Your task to perform on an android device: Open privacy settings Image 0: 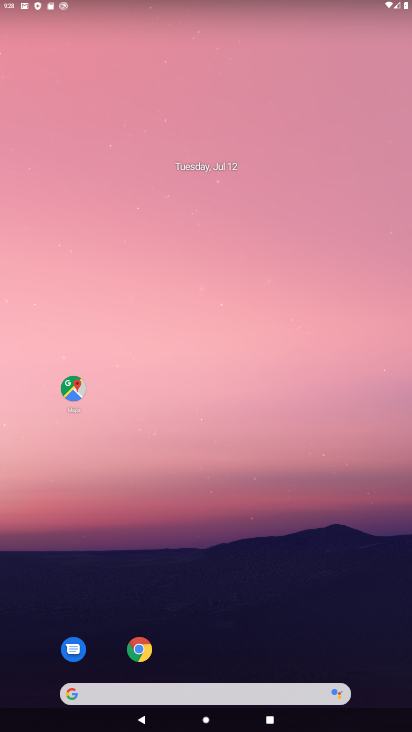
Step 0: click (144, 665)
Your task to perform on an android device: Open privacy settings Image 1: 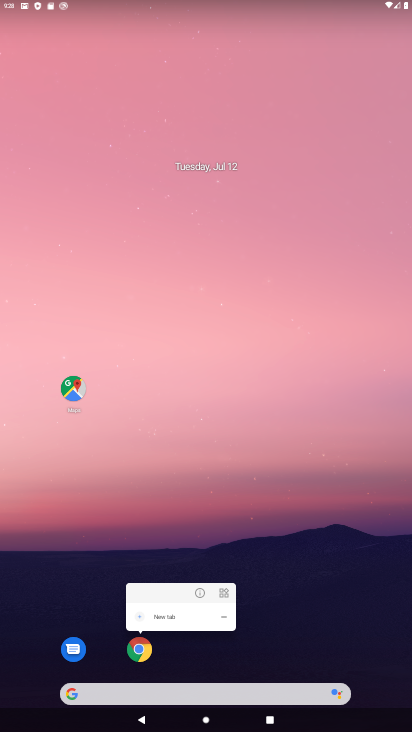
Step 1: click (143, 656)
Your task to perform on an android device: Open privacy settings Image 2: 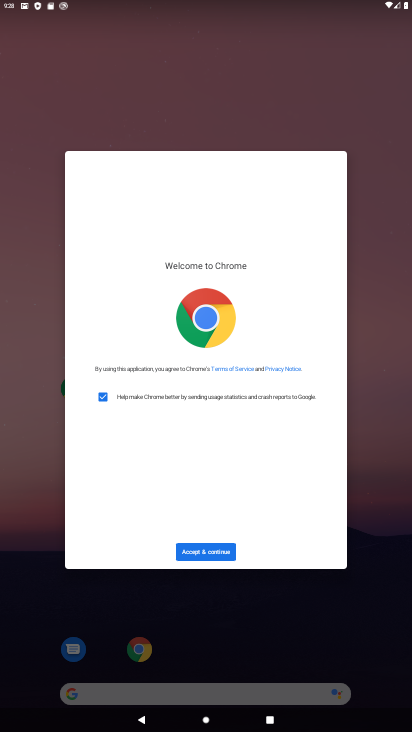
Step 2: click (177, 559)
Your task to perform on an android device: Open privacy settings Image 3: 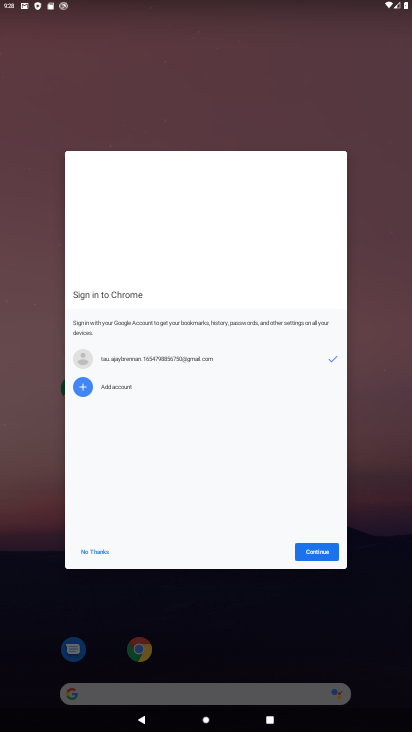
Step 3: click (316, 546)
Your task to perform on an android device: Open privacy settings Image 4: 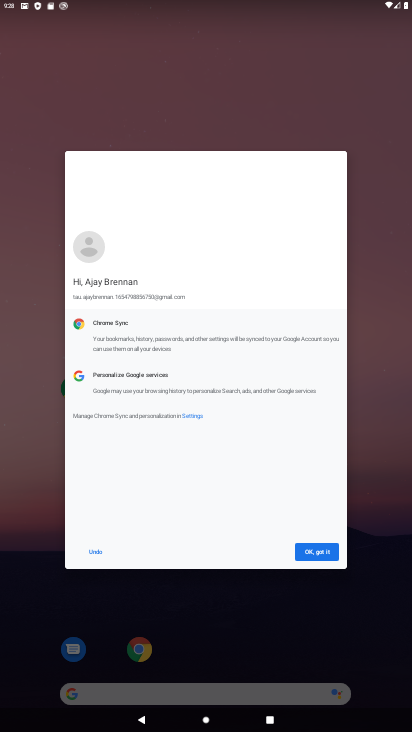
Step 4: click (316, 548)
Your task to perform on an android device: Open privacy settings Image 5: 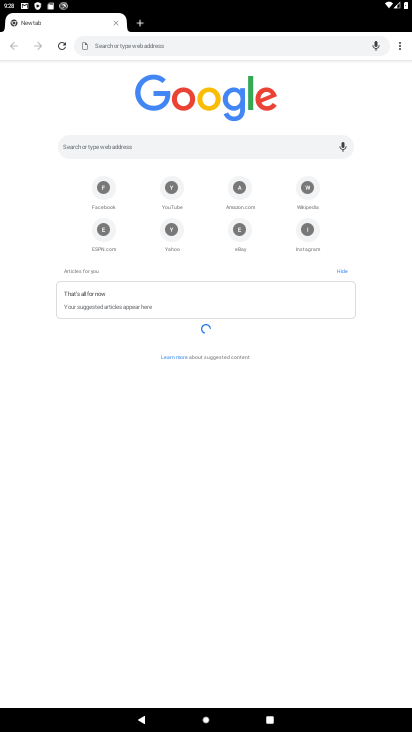
Step 5: drag from (399, 49) to (326, 206)
Your task to perform on an android device: Open privacy settings Image 6: 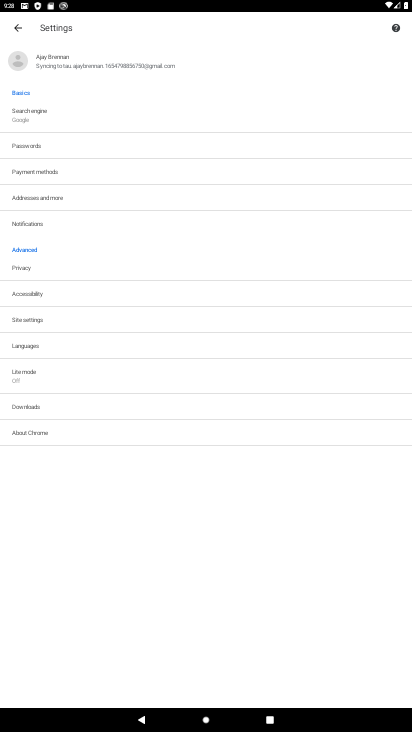
Step 6: click (53, 270)
Your task to perform on an android device: Open privacy settings Image 7: 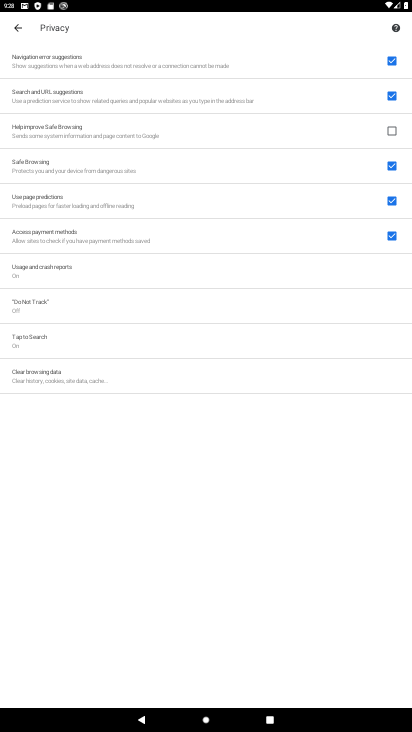
Step 7: task complete